Your task to perform on an android device: Go to Android settings Image 0: 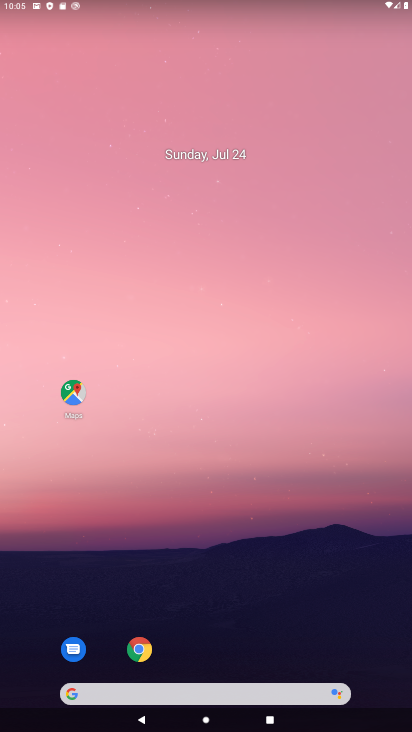
Step 0: drag from (305, 586) to (268, 42)
Your task to perform on an android device: Go to Android settings Image 1: 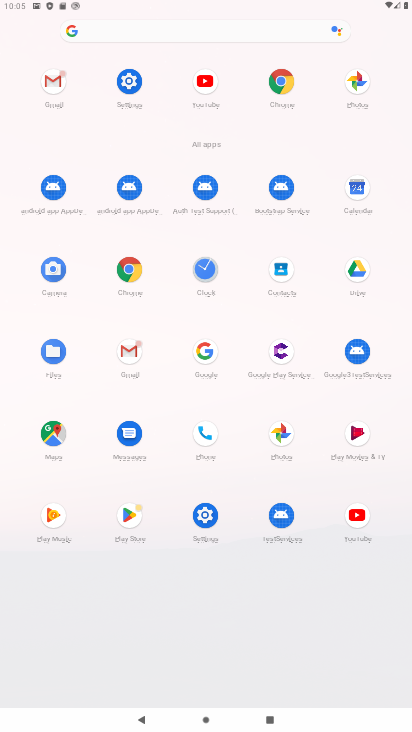
Step 1: click (130, 73)
Your task to perform on an android device: Go to Android settings Image 2: 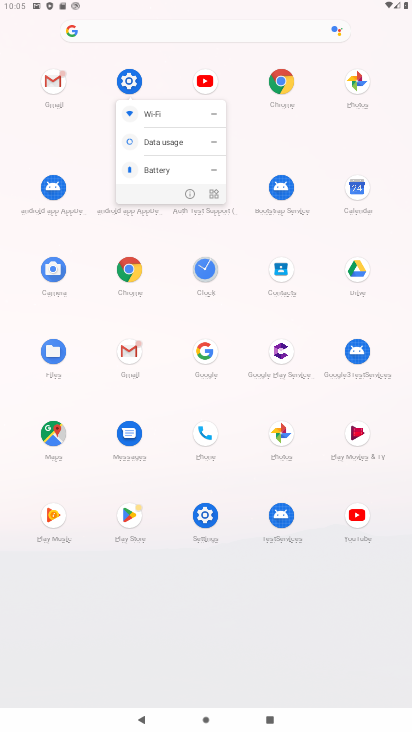
Step 2: click (130, 73)
Your task to perform on an android device: Go to Android settings Image 3: 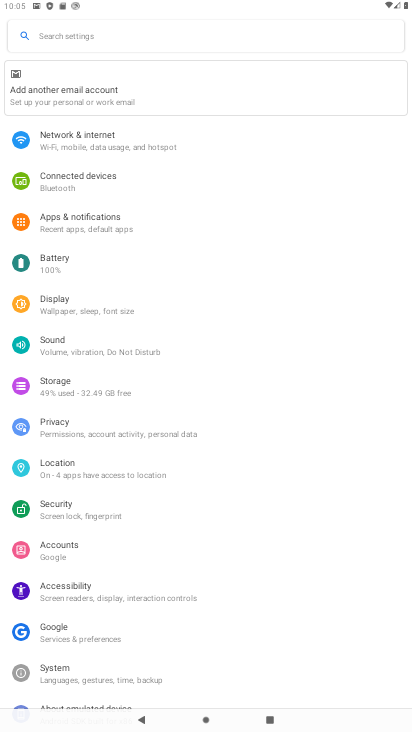
Step 3: task complete